Your task to perform on an android device: set the stopwatch Image 0: 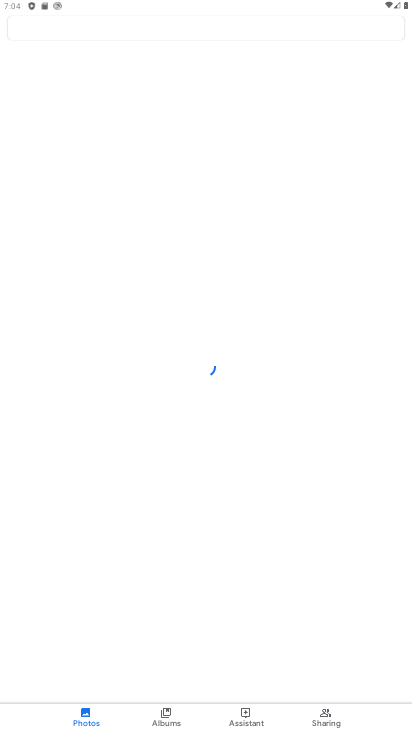
Step 0: press home button
Your task to perform on an android device: set the stopwatch Image 1: 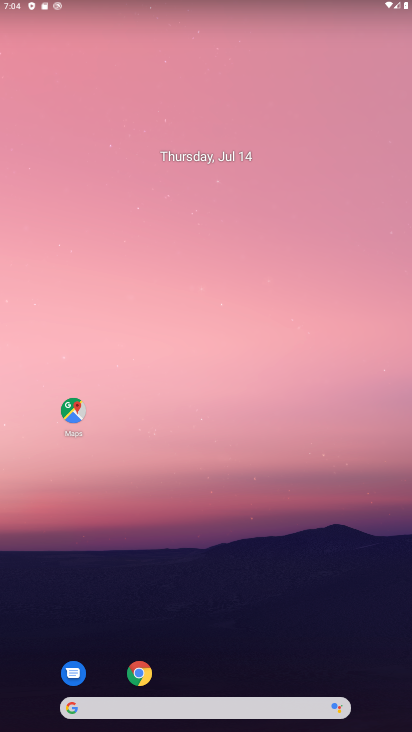
Step 1: drag from (234, 718) to (312, 127)
Your task to perform on an android device: set the stopwatch Image 2: 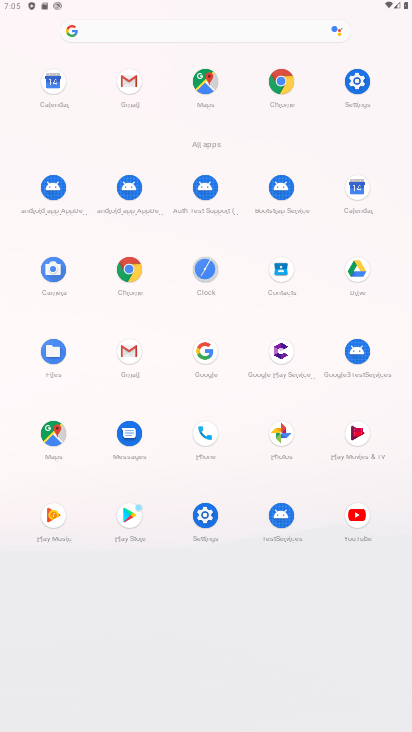
Step 2: click (202, 269)
Your task to perform on an android device: set the stopwatch Image 3: 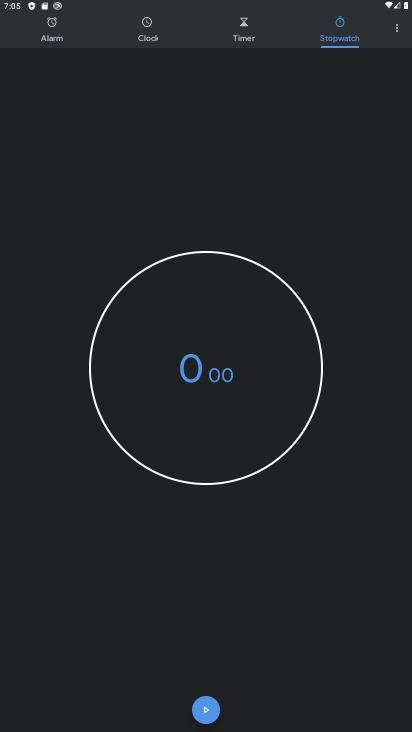
Step 3: click (213, 710)
Your task to perform on an android device: set the stopwatch Image 4: 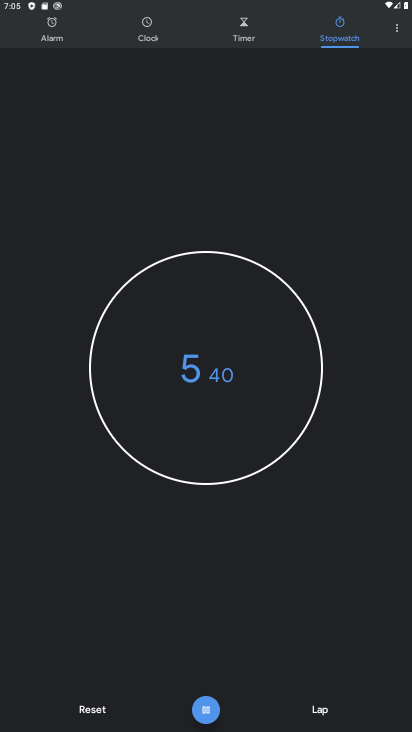
Step 4: click (206, 707)
Your task to perform on an android device: set the stopwatch Image 5: 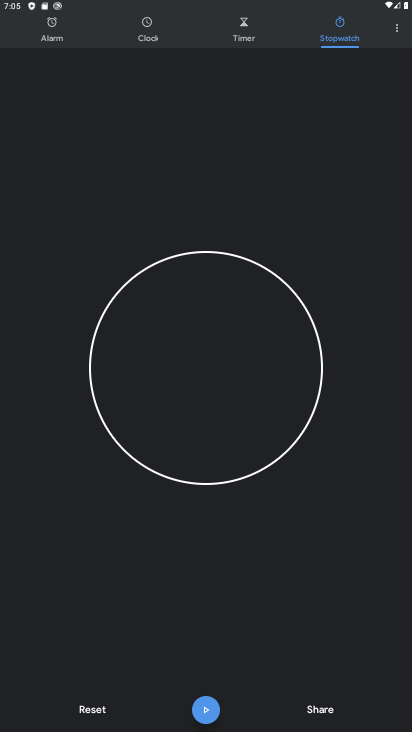
Step 5: task complete